Your task to perform on an android device: turn off javascript in the chrome app Image 0: 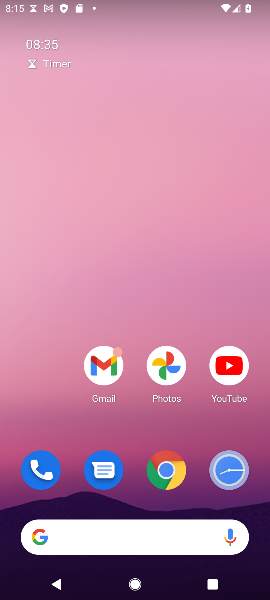
Step 0: click (163, 471)
Your task to perform on an android device: turn off javascript in the chrome app Image 1: 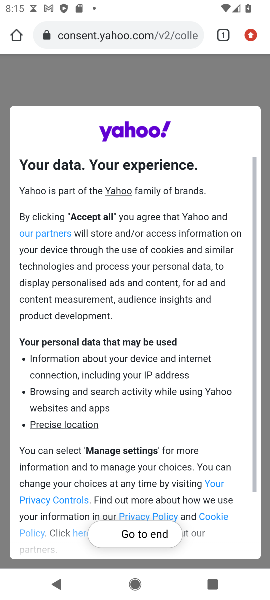
Step 1: click (255, 35)
Your task to perform on an android device: turn off javascript in the chrome app Image 2: 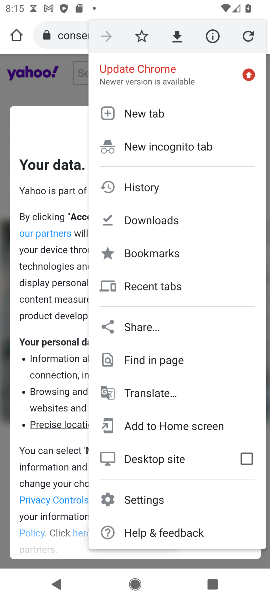
Step 2: click (139, 502)
Your task to perform on an android device: turn off javascript in the chrome app Image 3: 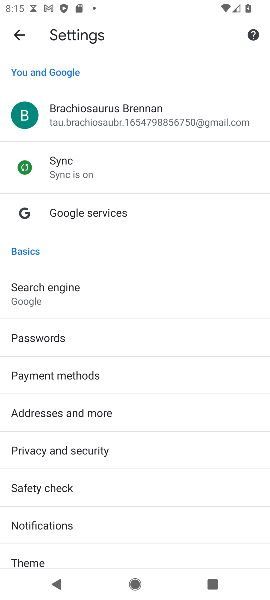
Step 3: drag from (67, 494) to (97, 295)
Your task to perform on an android device: turn off javascript in the chrome app Image 4: 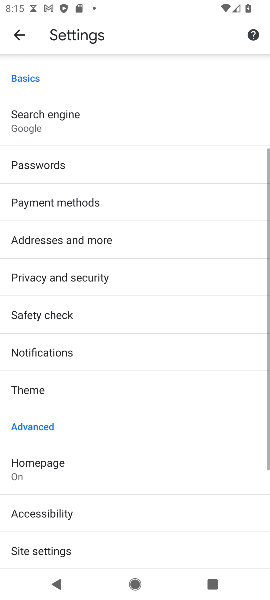
Step 4: drag from (49, 506) to (93, 304)
Your task to perform on an android device: turn off javascript in the chrome app Image 5: 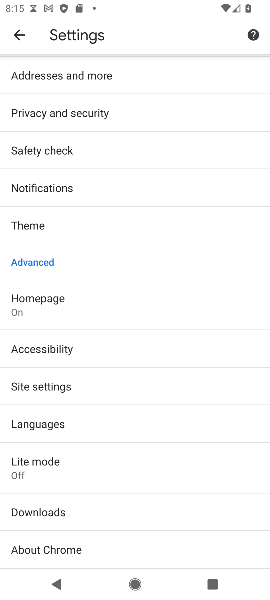
Step 5: click (51, 384)
Your task to perform on an android device: turn off javascript in the chrome app Image 6: 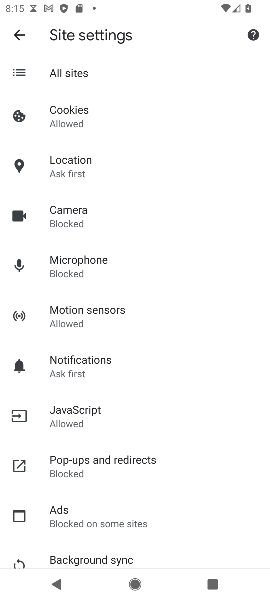
Step 6: click (94, 415)
Your task to perform on an android device: turn off javascript in the chrome app Image 7: 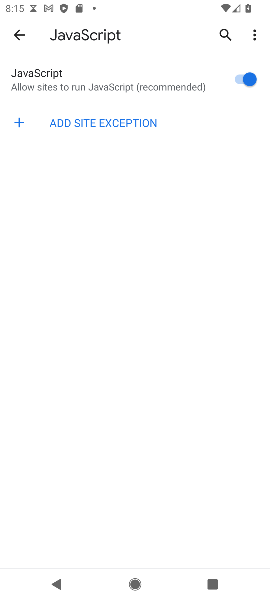
Step 7: click (231, 84)
Your task to perform on an android device: turn off javascript in the chrome app Image 8: 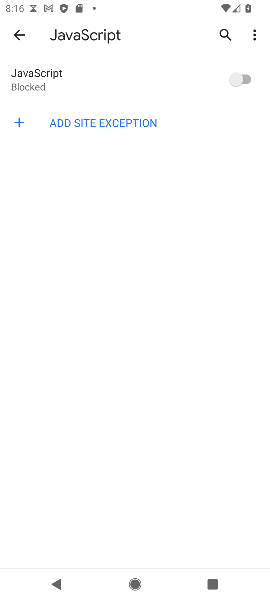
Step 8: task complete